Your task to perform on an android device: see sites visited before in the chrome app Image 0: 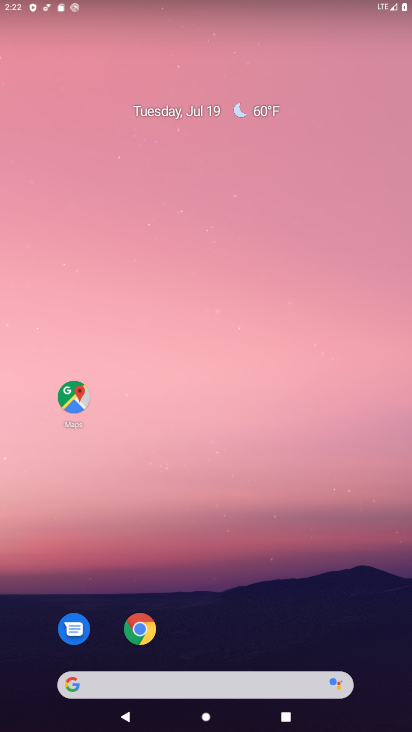
Step 0: click (154, 620)
Your task to perform on an android device: see sites visited before in the chrome app Image 1: 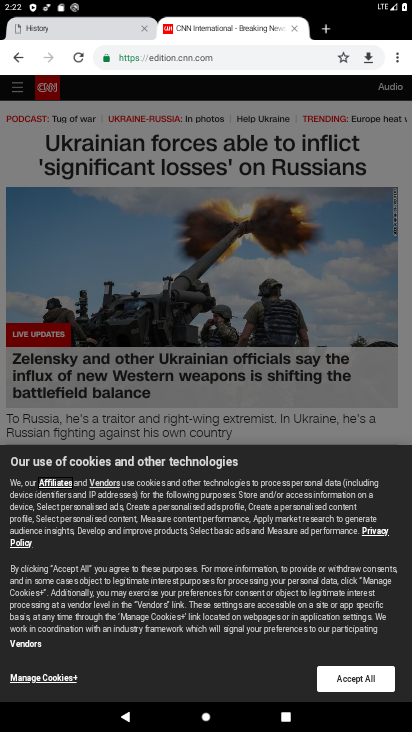
Step 1: click (393, 53)
Your task to perform on an android device: see sites visited before in the chrome app Image 2: 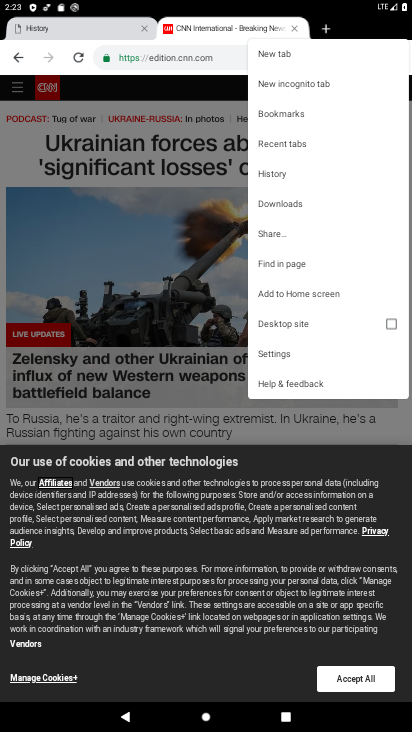
Step 2: click (352, 139)
Your task to perform on an android device: see sites visited before in the chrome app Image 3: 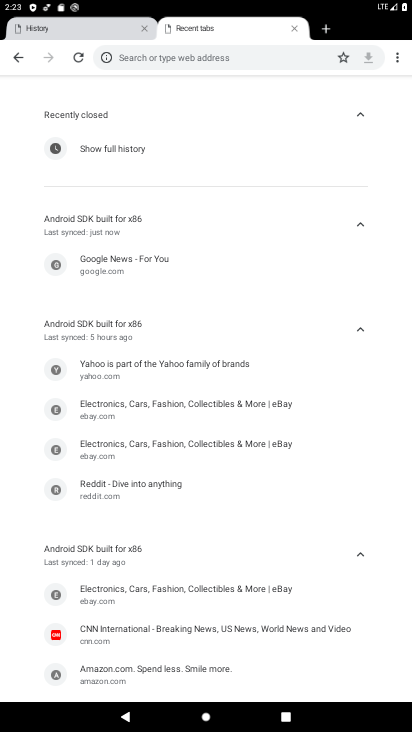
Step 3: task complete